Your task to perform on an android device: check android version Image 0: 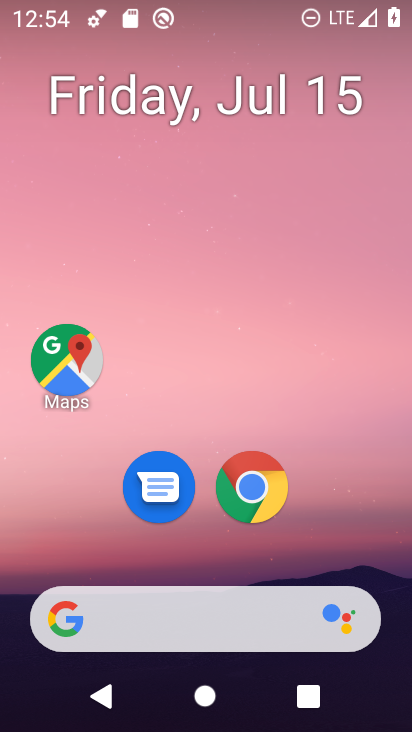
Step 0: drag from (249, 494) to (250, 205)
Your task to perform on an android device: check android version Image 1: 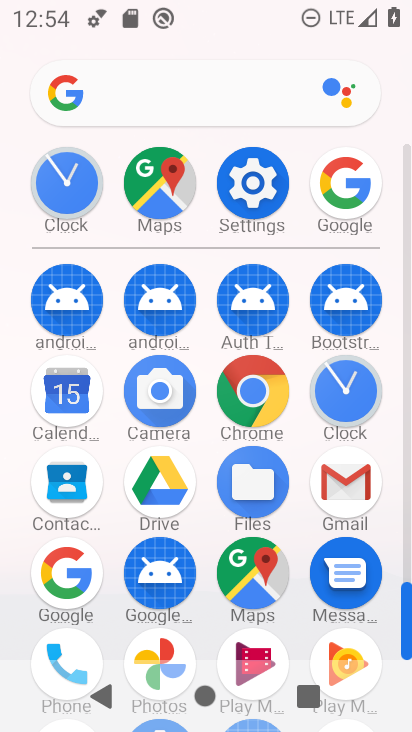
Step 1: click (254, 209)
Your task to perform on an android device: check android version Image 2: 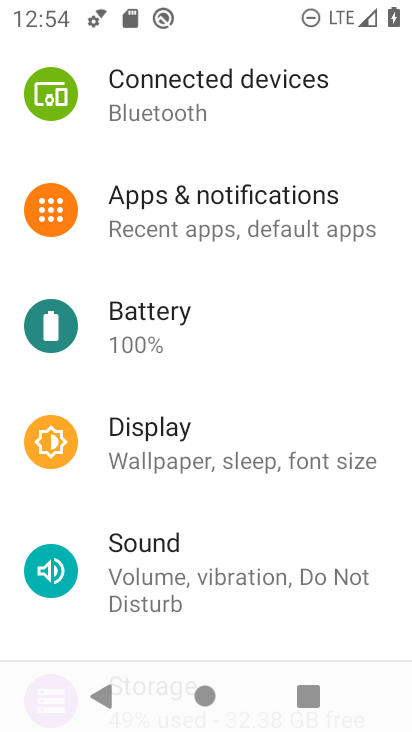
Step 2: drag from (224, 532) to (245, 96)
Your task to perform on an android device: check android version Image 3: 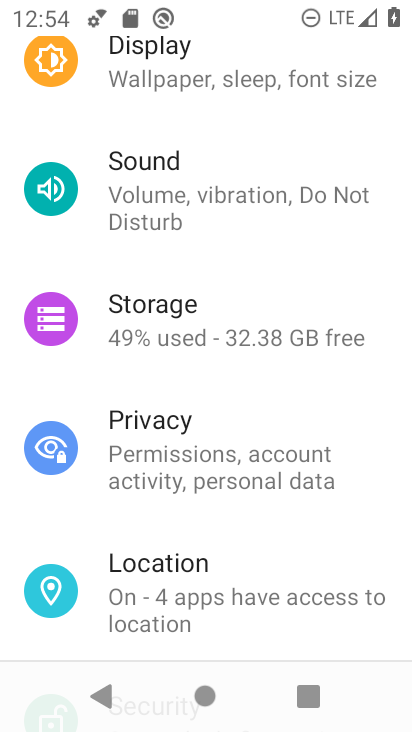
Step 3: drag from (205, 514) to (256, 91)
Your task to perform on an android device: check android version Image 4: 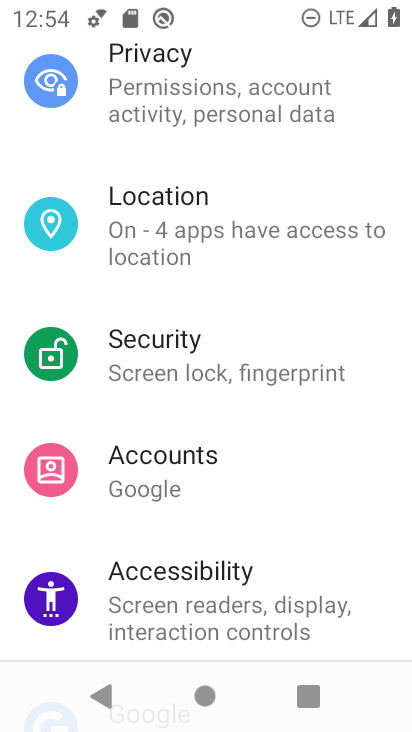
Step 4: drag from (240, 532) to (309, 130)
Your task to perform on an android device: check android version Image 5: 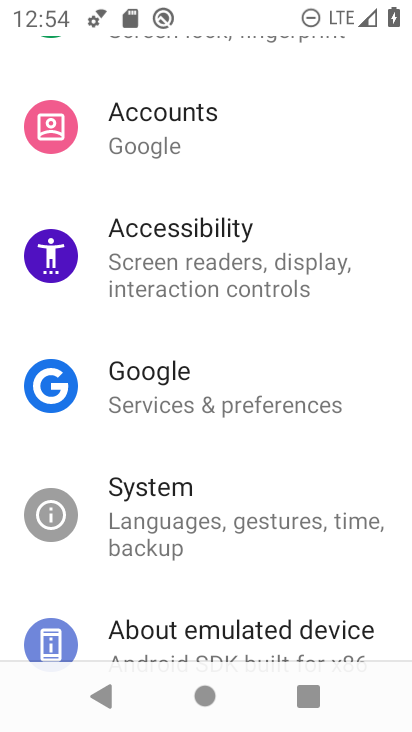
Step 5: drag from (214, 532) to (240, 102)
Your task to perform on an android device: check android version Image 6: 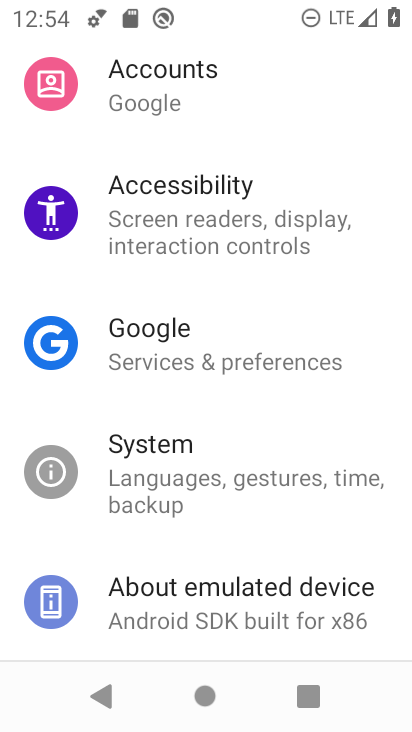
Step 6: click (199, 585)
Your task to perform on an android device: check android version Image 7: 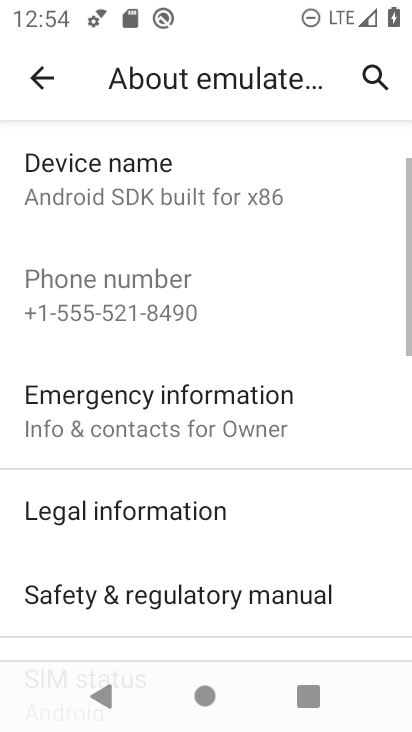
Step 7: drag from (239, 544) to (286, 109)
Your task to perform on an android device: check android version Image 8: 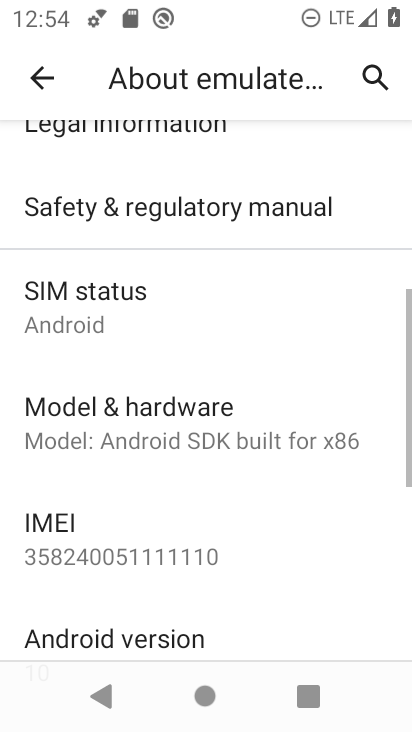
Step 8: drag from (208, 516) to (229, 37)
Your task to perform on an android device: check android version Image 9: 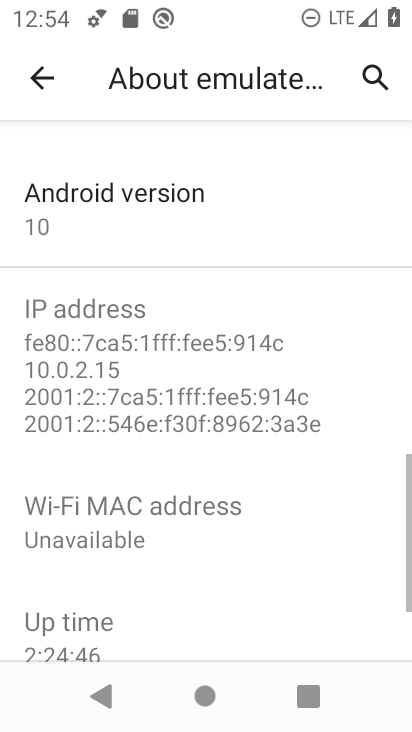
Step 9: drag from (231, 470) to (275, 491)
Your task to perform on an android device: check android version Image 10: 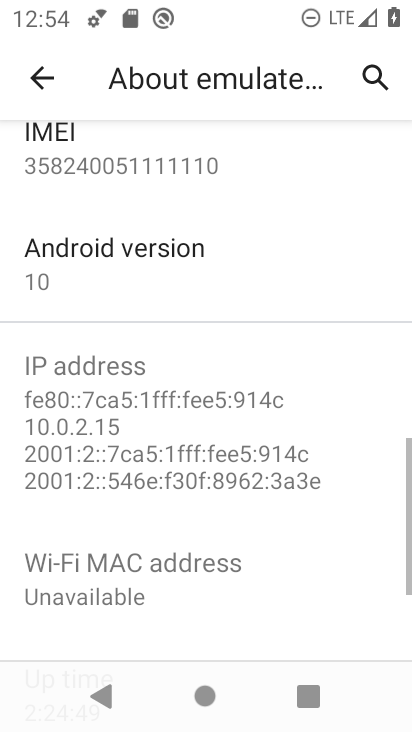
Step 10: click (199, 286)
Your task to perform on an android device: check android version Image 11: 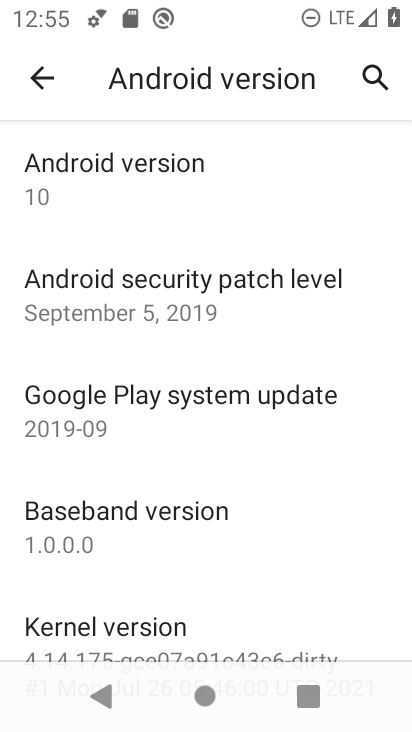
Step 11: task complete